Your task to perform on an android device: Open Wikipedia Image 0: 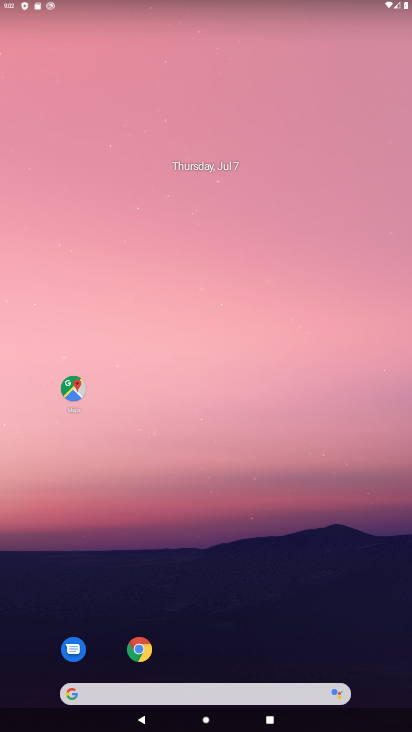
Step 0: drag from (179, 553) to (166, 80)
Your task to perform on an android device: Open Wikipedia Image 1: 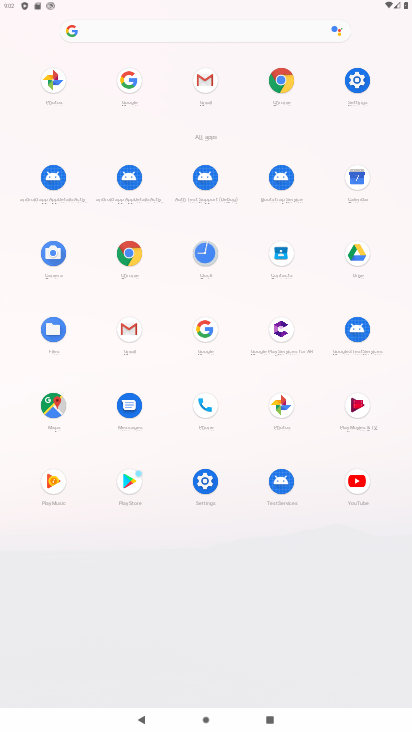
Step 1: click (261, 27)
Your task to perform on an android device: Open Wikipedia Image 2: 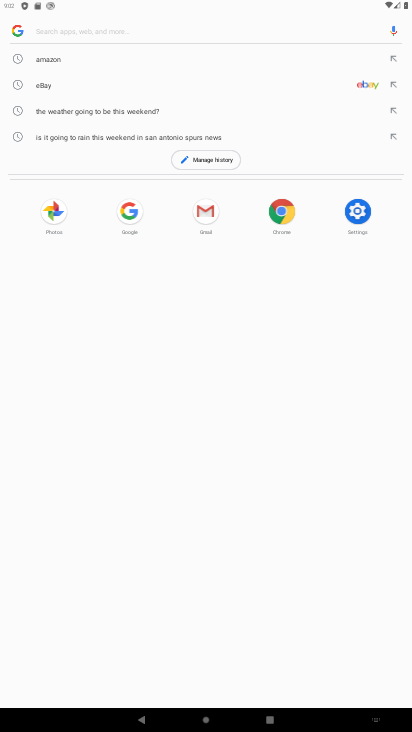
Step 2: type "wikipedia"
Your task to perform on an android device: Open Wikipedia Image 3: 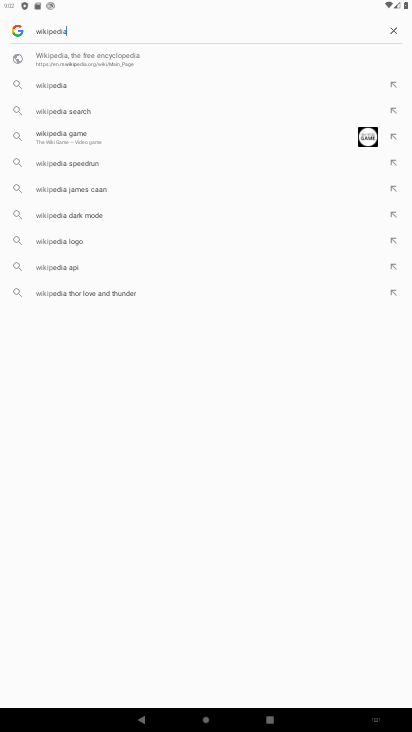
Step 3: press enter
Your task to perform on an android device: Open Wikipedia Image 4: 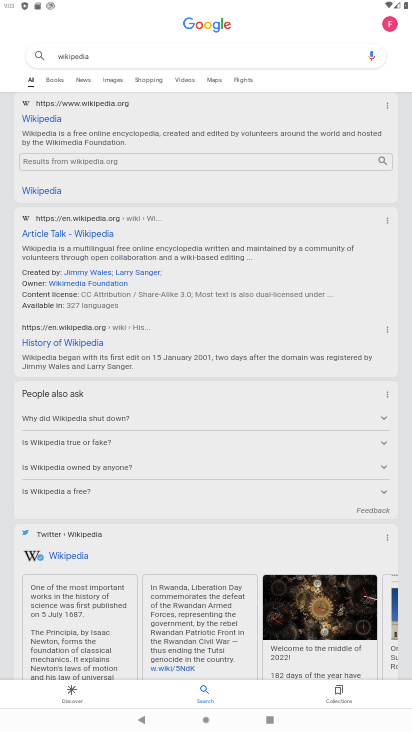
Step 4: click (46, 118)
Your task to perform on an android device: Open Wikipedia Image 5: 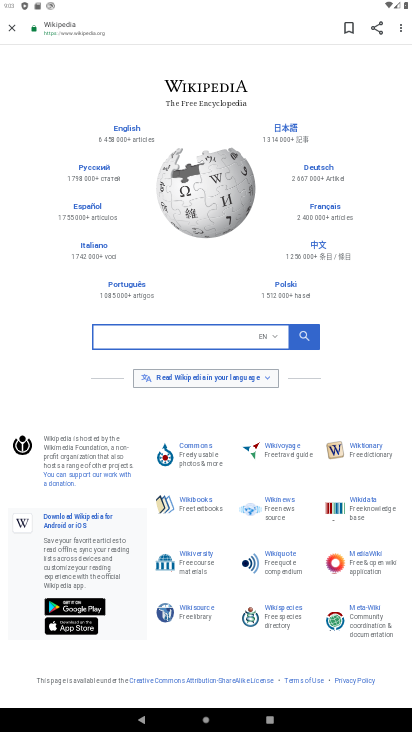
Step 5: task complete